Your task to perform on an android device: toggle improve location accuracy Image 0: 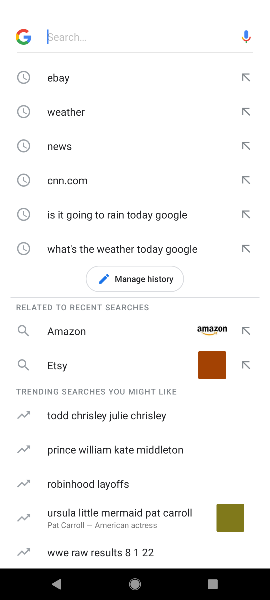
Step 0: press home button
Your task to perform on an android device: toggle improve location accuracy Image 1: 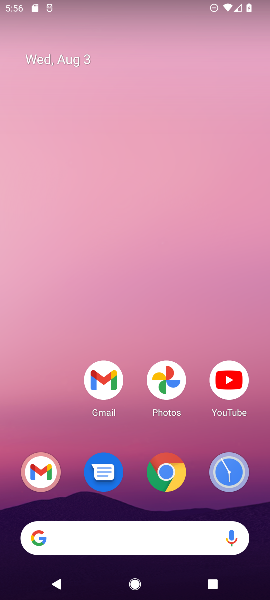
Step 1: drag from (246, 515) to (123, 8)
Your task to perform on an android device: toggle improve location accuracy Image 2: 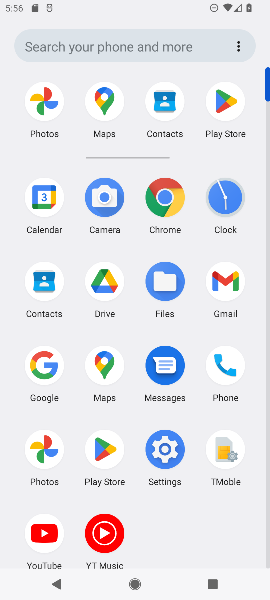
Step 2: click (150, 455)
Your task to perform on an android device: toggle improve location accuracy Image 3: 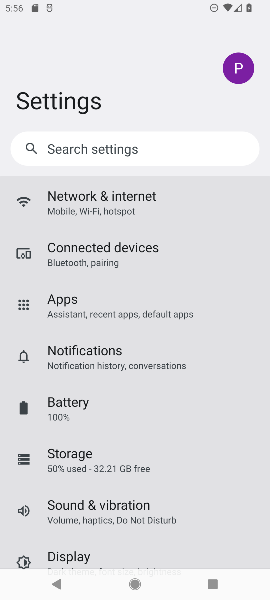
Step 3: drag from (125, 492) to (97, 166)
Your task to perform on an android device: toggle improve location accuracy Image 4: 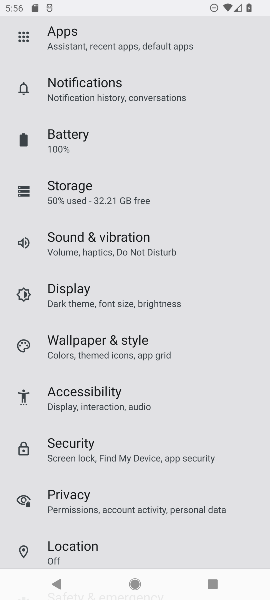
Step 4: click (79, 547)
Your task to perform on an android device: toggle improve location accuracy Image 5: 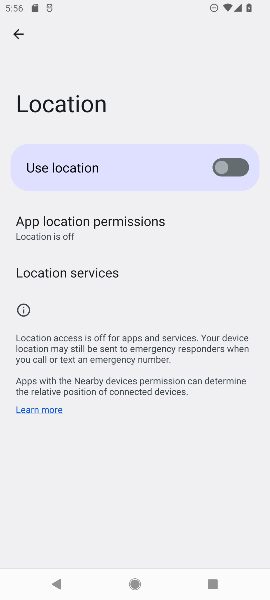
Step 5: click (83, 275)
Your task to perform on an android device: toggle improve location accuracy Image 6: 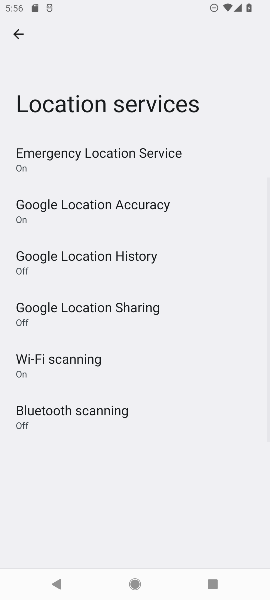
Step 6: click (93, 213)
Your task to perform on an android device: toggle improve location accuracy Image 7: 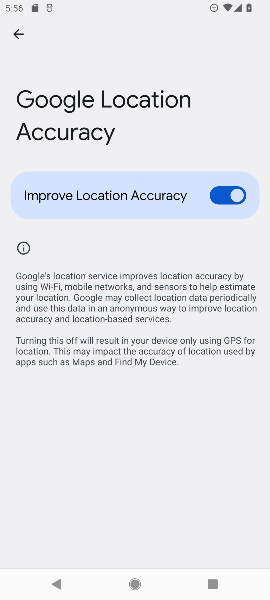
Step 7: click (201, 195)
Your task to perform on an android device: toggle improve location accuracy Image 8: 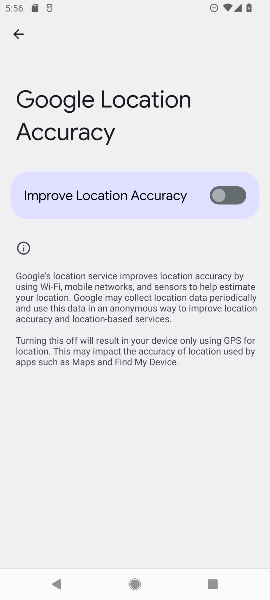
Step 8: task complete